Your task to perform on an android device: Search for flights from Zurich to Helsinki Image 0: 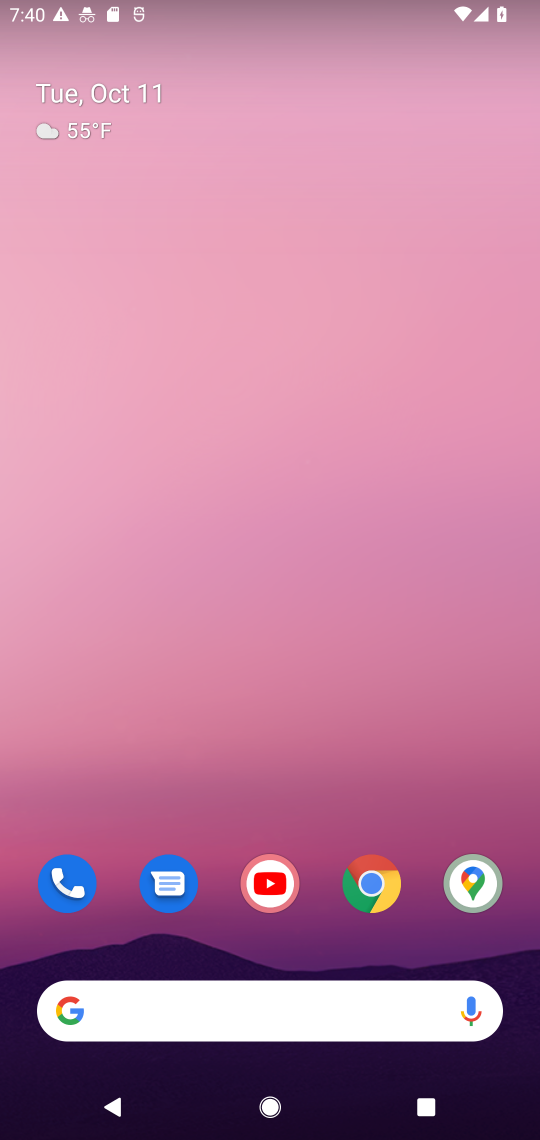
Step 0: drag from (310, 952) to (290, 71)
Your task to perform on an android device: Search for flights from Zurich to Helsinki Image 1: 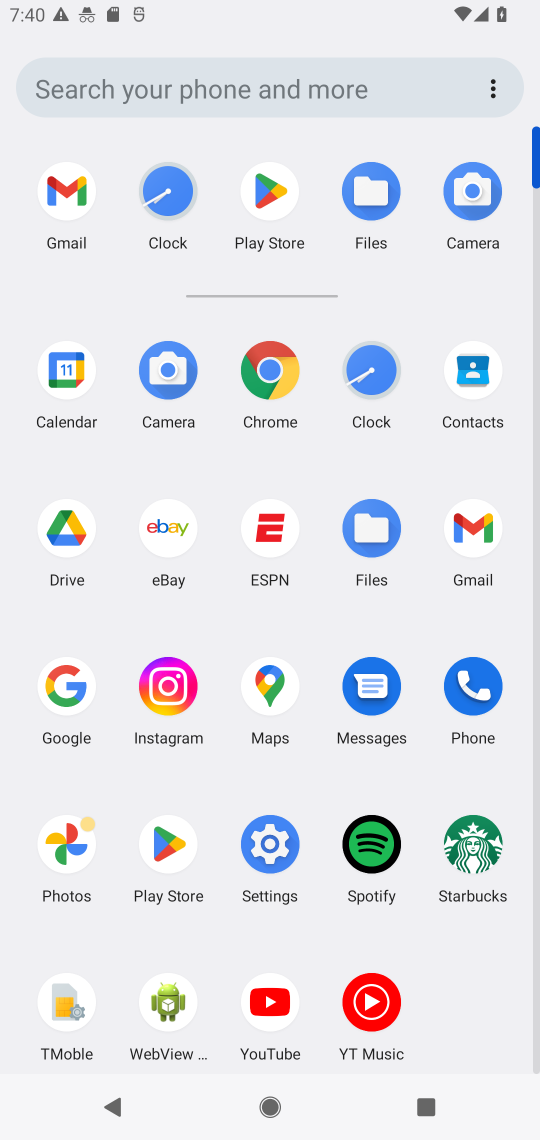
Step 1: click (277, 376)
Your task to perform on an android device: Search for flights from Zurich to Helsinki Image 2: 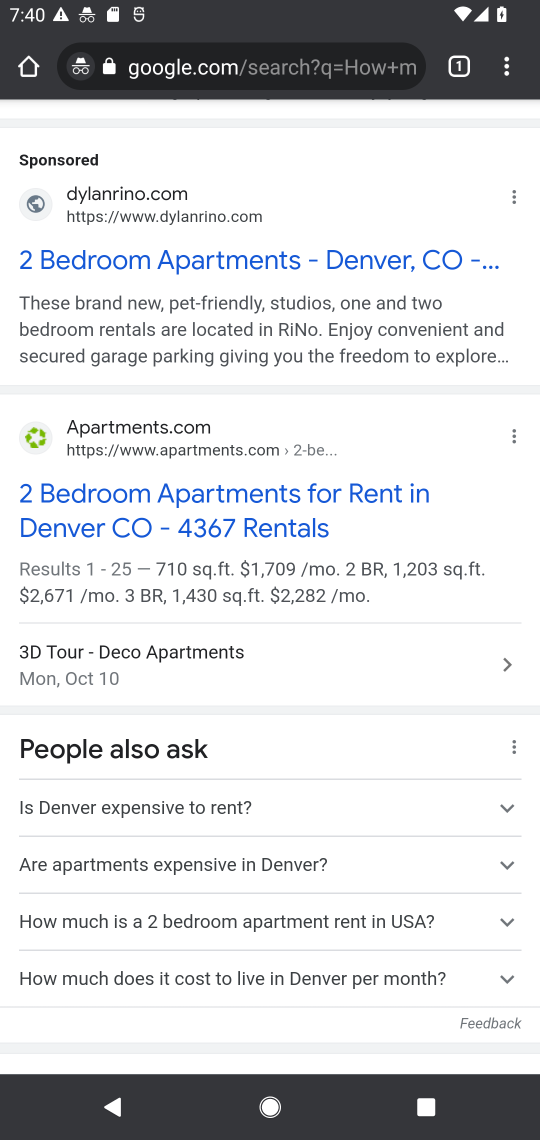
Step 2: click (239, 72)
Your task to perform on an android device: Search for flights from Zurich to Helsinki Image 3: 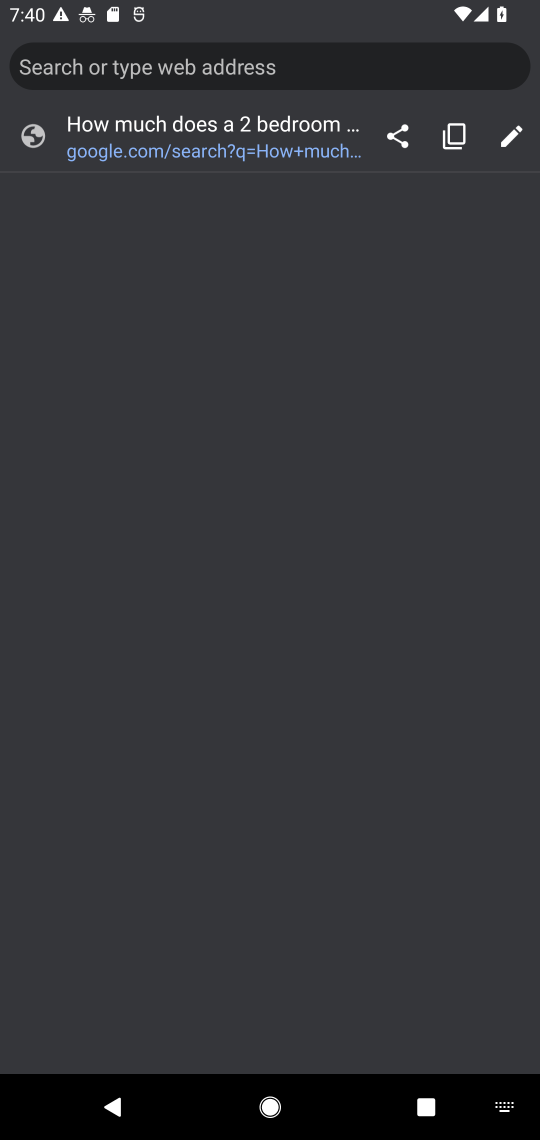
Step 3: type "flights from Zurich to Helsinki"
Your task to perform on an android device: Search for flights from Zurich to Helsinki Image 4: 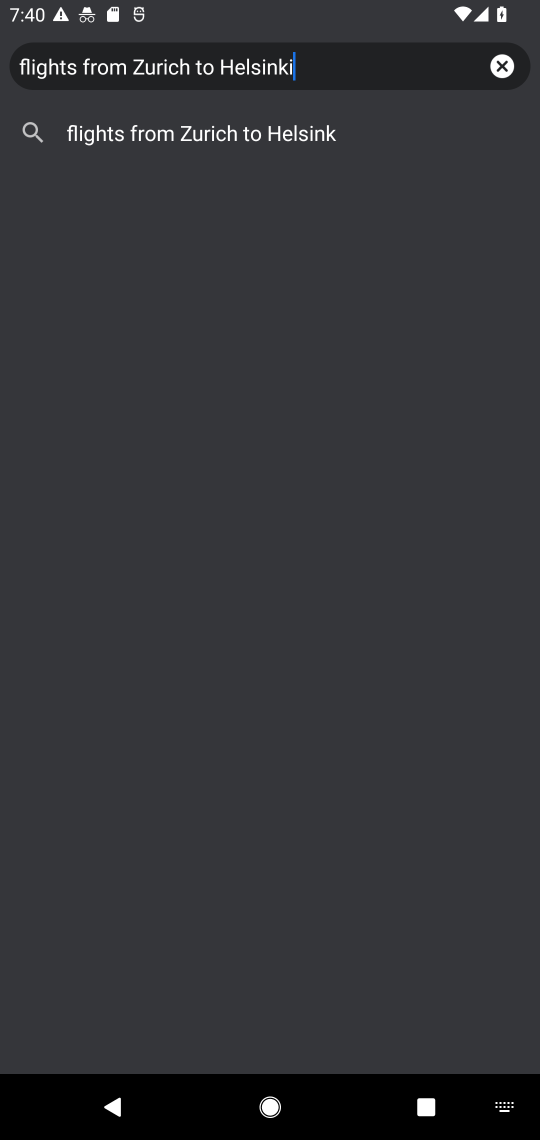
Step 4: press enter
Your task to perform on an android device: Search for flights from Zurich to Helsinki Image 5: 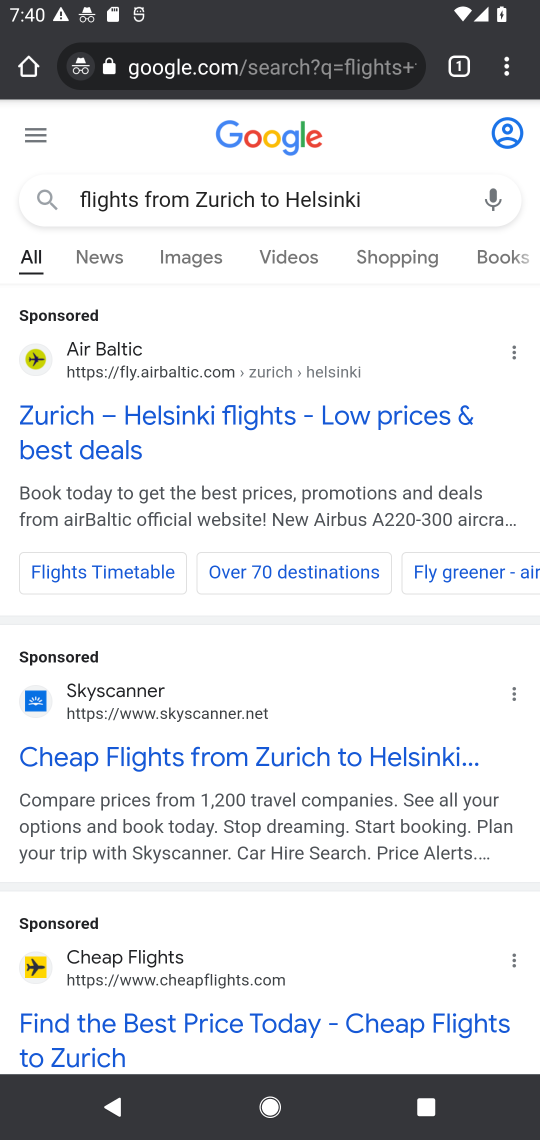
Step 5: task complete